Your task to perform on an android device: snooze an email in the gmail app Image 0: 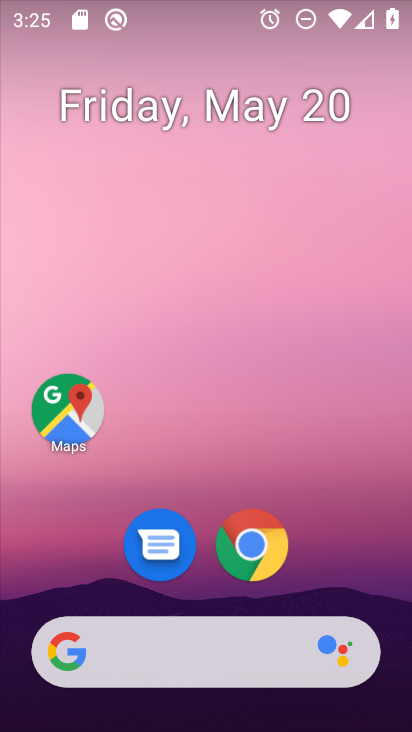
Step 0: drag from (314, 586) to (224, 38)
Your task to perform on an android device: snooze an email in the gmail app Image 1: 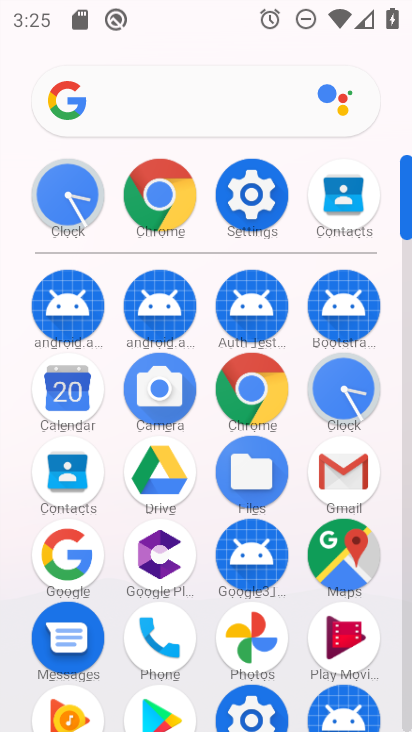
Step 1: click (343, 465)
Your task to perform on an android device: snooze an email in the gmail app Image 2: 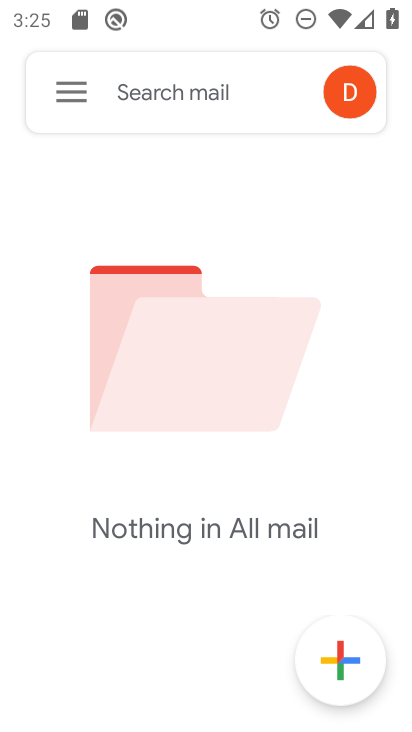
Step 2: task complete